Your task to perform on an android device: Open privacy settings Image 0: 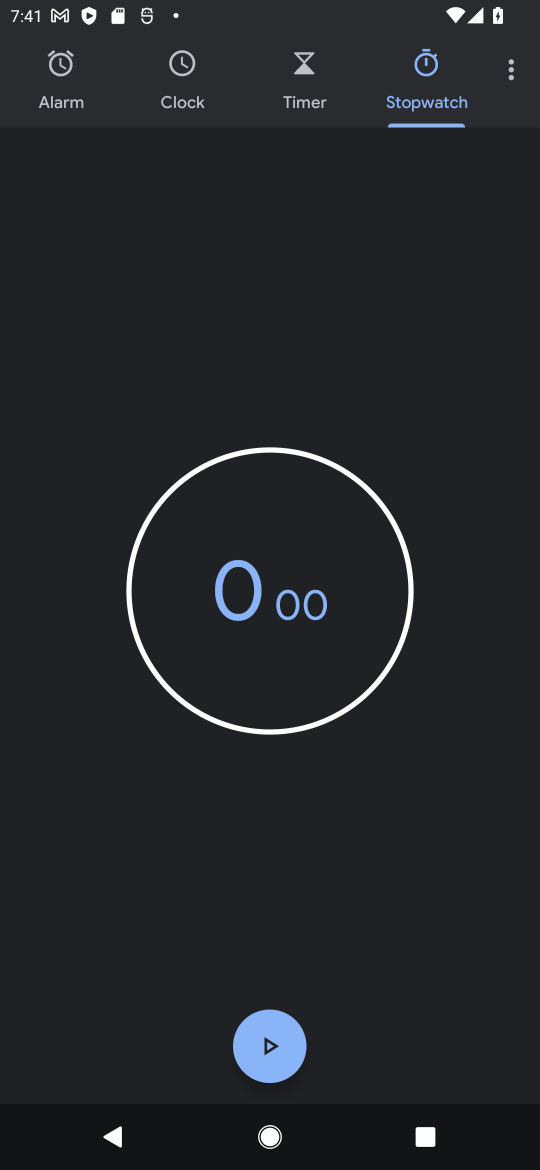
Step 0: press home button
Your task to perform on an android device: Open privacy settings Image 1: 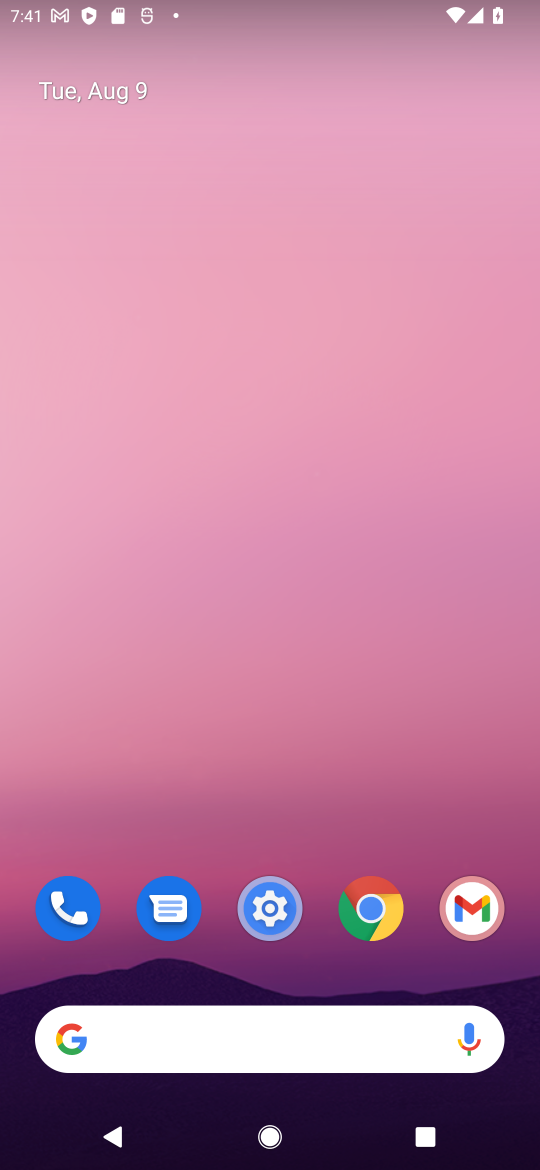
Step 1: drag from (301, 989) to (298, 0)
Your task to perform on an android device: Open privacy settings Image 2: 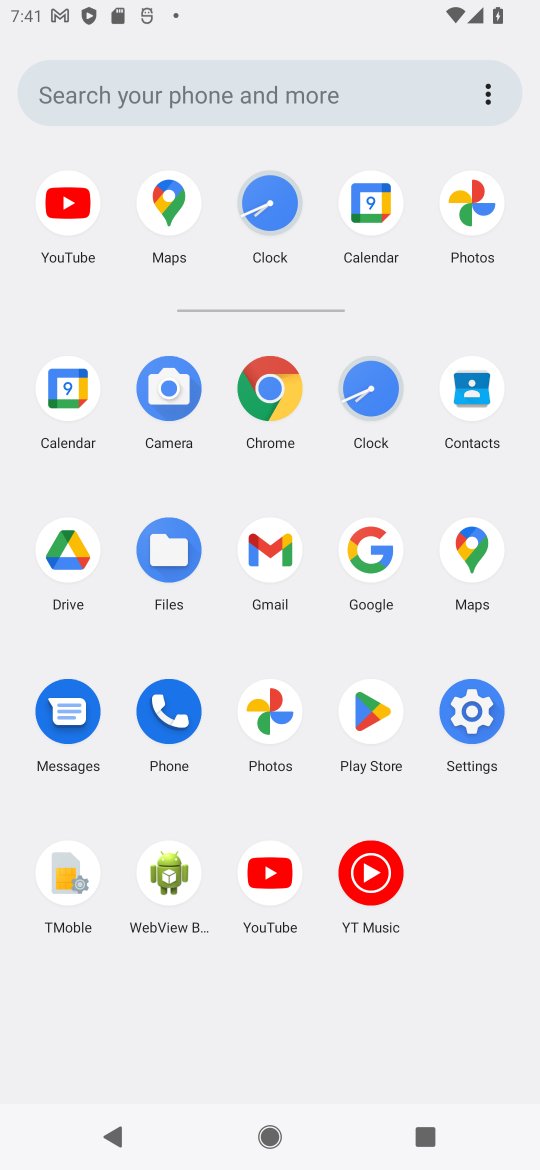
Step 2: click (476, 707)
Your task to perform on an android device: Open privacy settings Image 3: 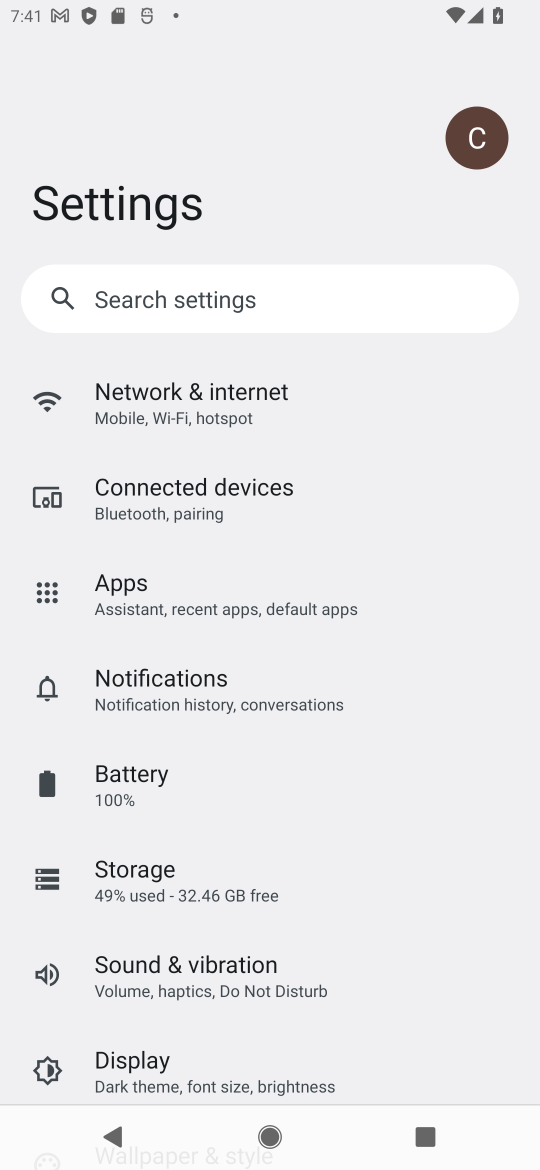
Step 3: drag from (160, 989) to (150, 451)
Your task to perform on an android device: Open privacy settings Image 4: 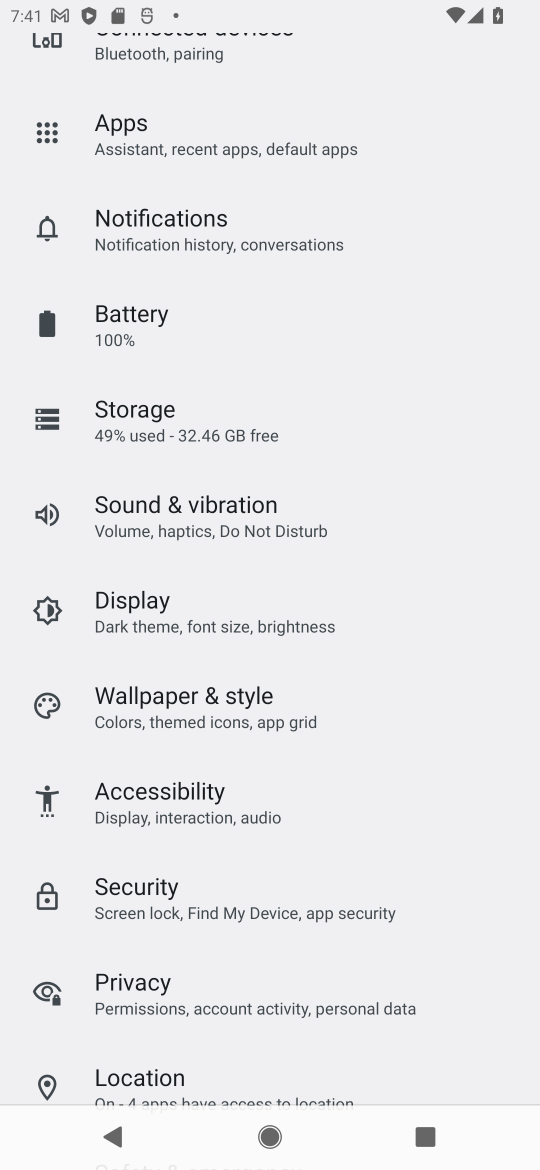
Step 4: click (132, 991)
Your task to perform on an android device: Open privacy settings Image 5: 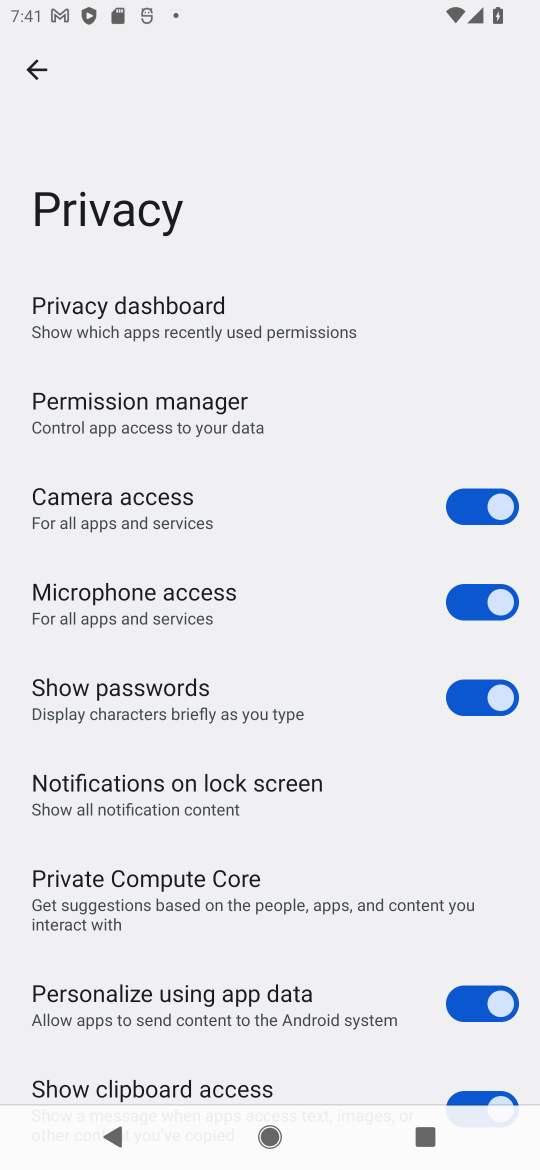
Step 5: task complete